Your task to perform on an android device: change text size in settings app Image 0: 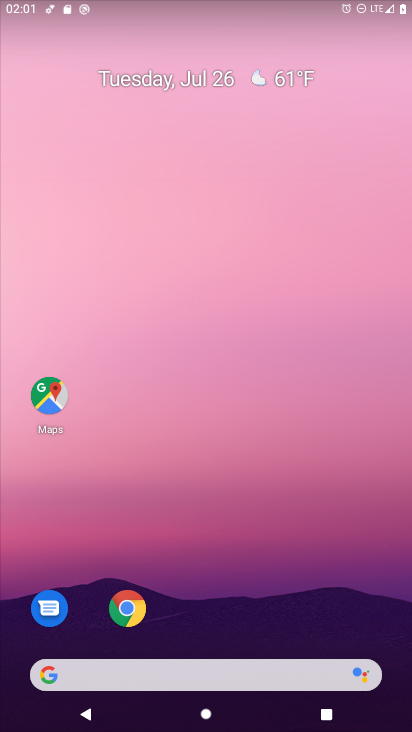
Step 0: drag from (20, 566) to (180, 112)
Your task to perform on an android device: change text size in settings app Image 1: 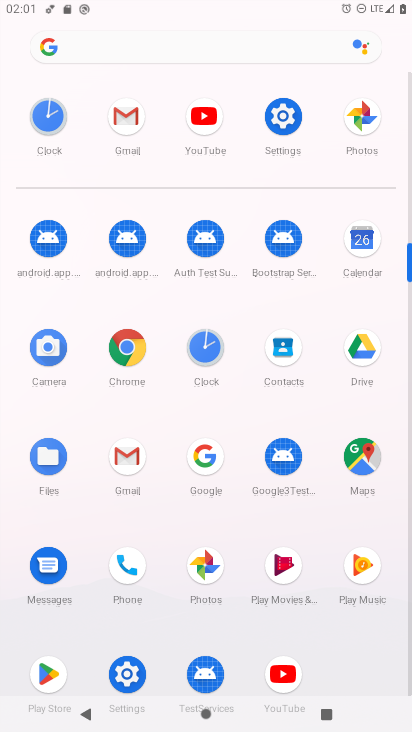
Step 1: click (136, 680)
Your task to perform on an android device: change text size in settings app Image 2: 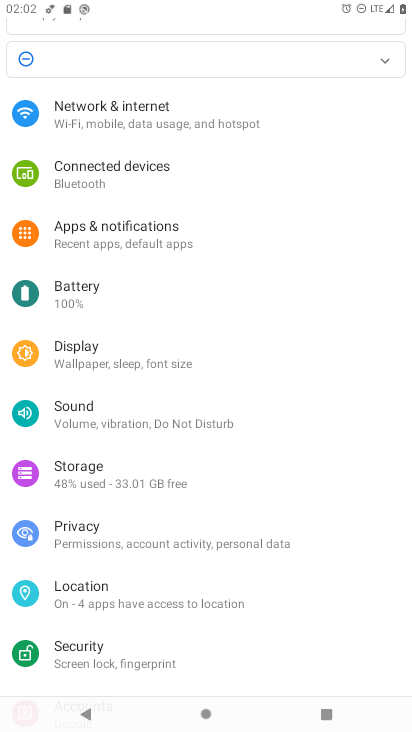
Step 2: drag from (80, 645) to (225, 181)
Your task to perform on an android device: change text size in settings app Image 3: 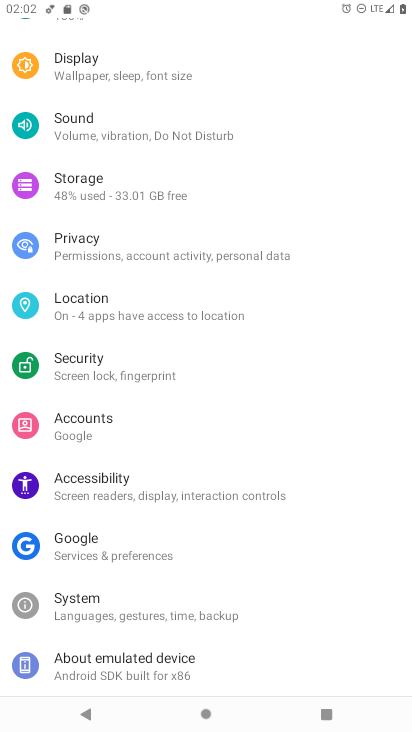
Step 3: drag from (99, 88) to (22, 587)
Your task to perform on an android device: change text size in settings app Image 4: 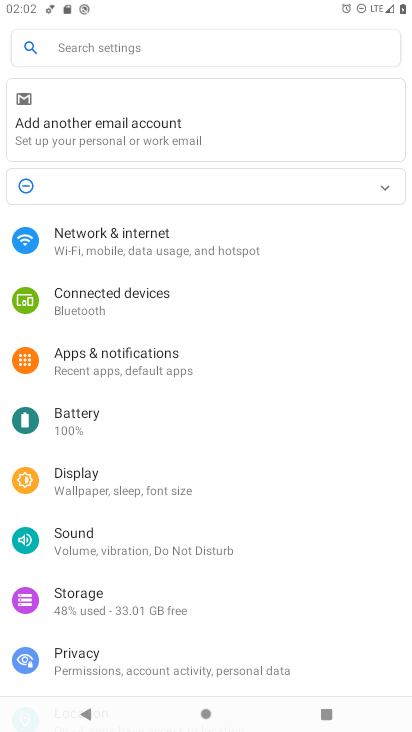
Step 4: click (179, 486)
Your task to perform on an android device: change text size in settings app Image 5: 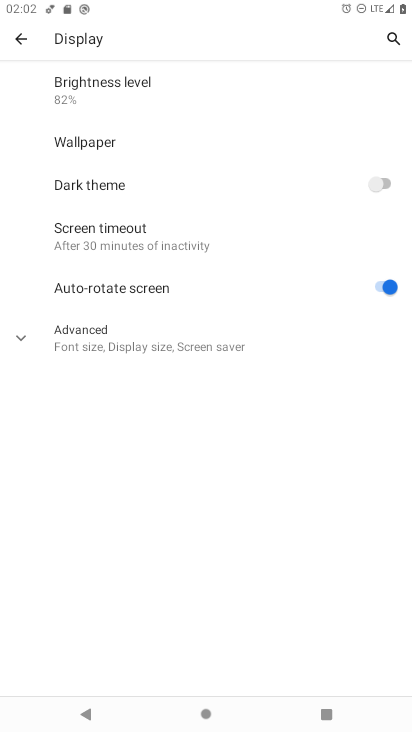
Step 5: click (117, 341)
Your task to perform on an android device: change text size in settings app Image 6: 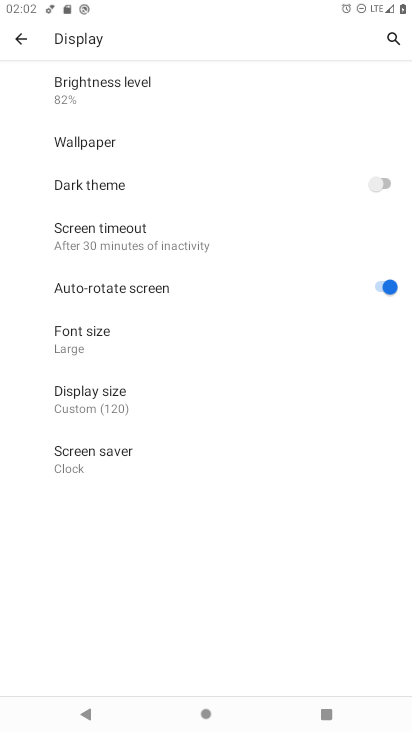
Step 6: click (118, 340)
Your task to perform on an android device: change text size in settings app Image 7: 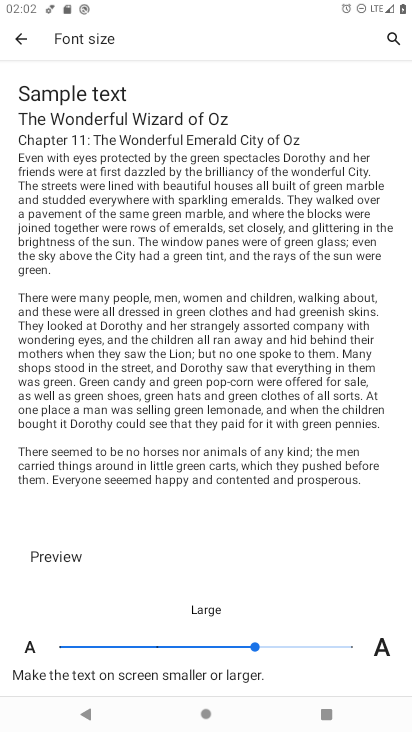
Step 7: drag from (255, 646) to (166, 649)
Your task to perform on an android device: change text size in settings app Image 8: 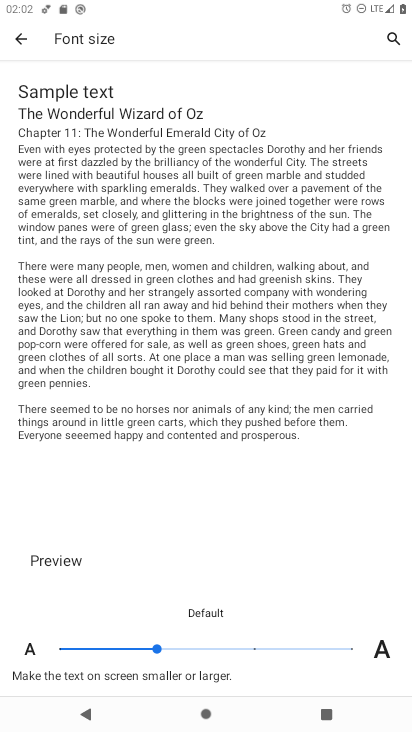
Step 8: click (253, 649)
Your task to perform on an android device: change text size in settings app Image 9: 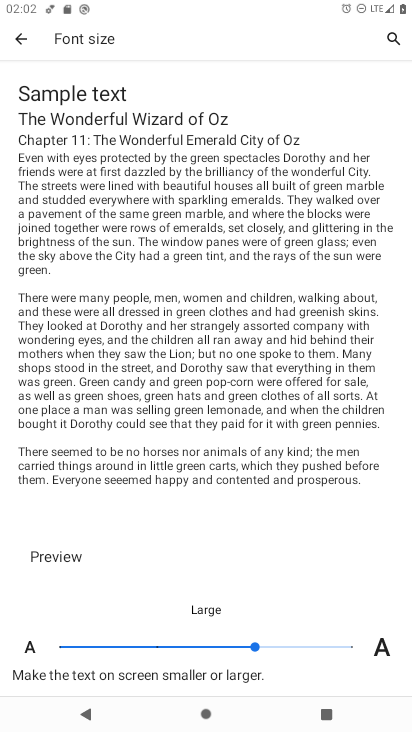
Step 9: click (353, 645)
Your task to perform on an android device: change text size in settings app Image 10: 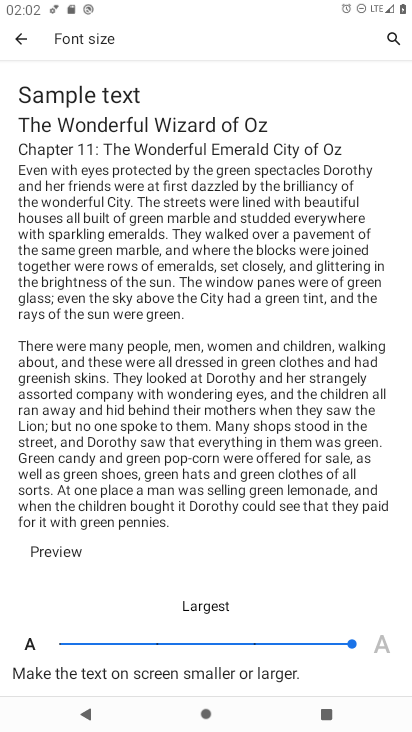
Step 10: task complete